Your task to perform on an android device: set default search engine in the chrome app Image 0: 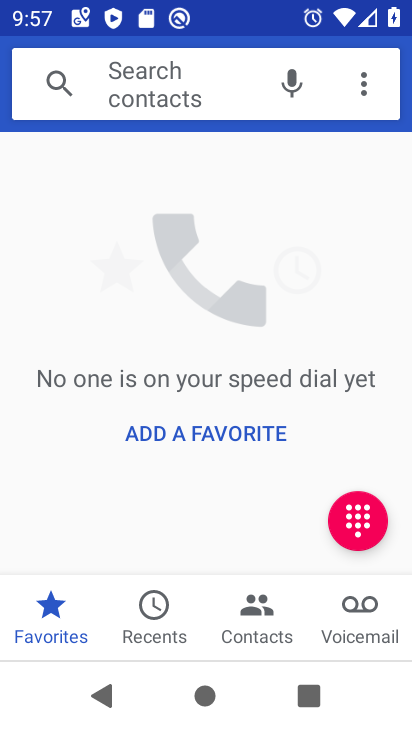
Step 0: press home button
Your task to perform on an android device: set default search engine in the chrome app Image 1: 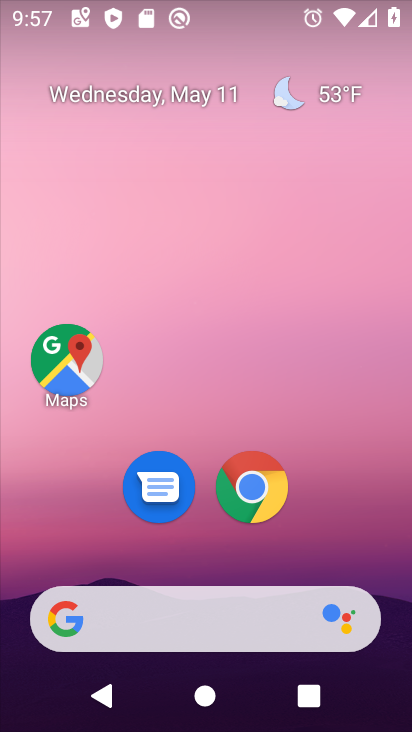
Step 1: click (226, 496)
Your task to perform on an android device: set default search engine in the chrome app Image 2: 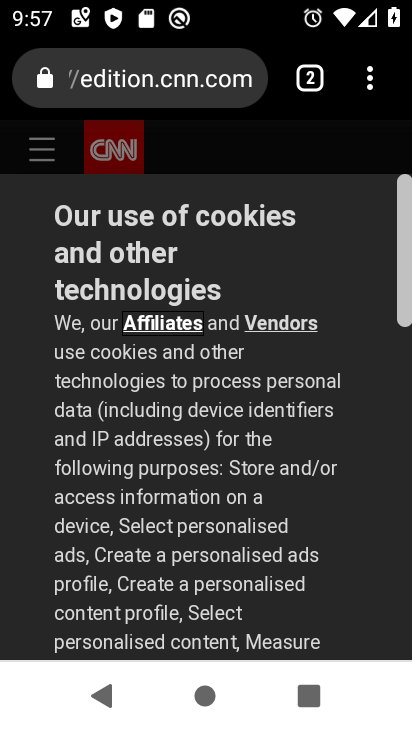
Step 2: drag from (357, 86) to (165, 544)
Your task to perform on an android device: set default search engine in the chrome app Image 3: 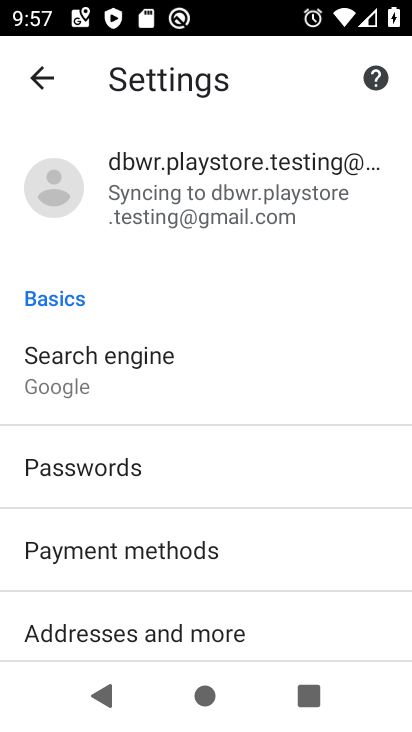
Step 3: click (113, 392)
Your task to perform on an android device: set default search engine in the chrome app Image 4: 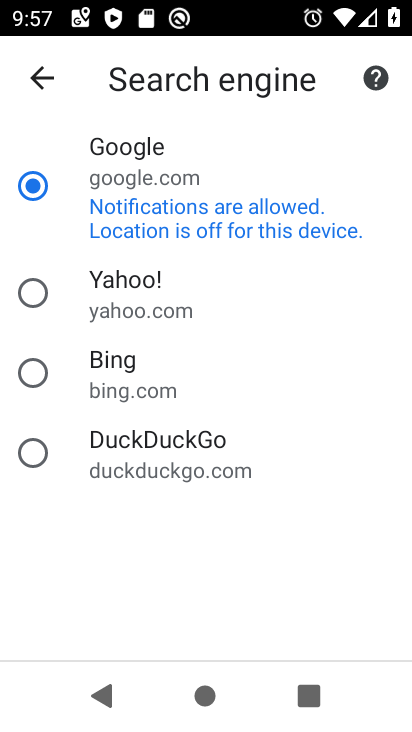
Step 4: click (113, 392)
Your task to perform on an android device: set default search engine in the chrome app Image 5: 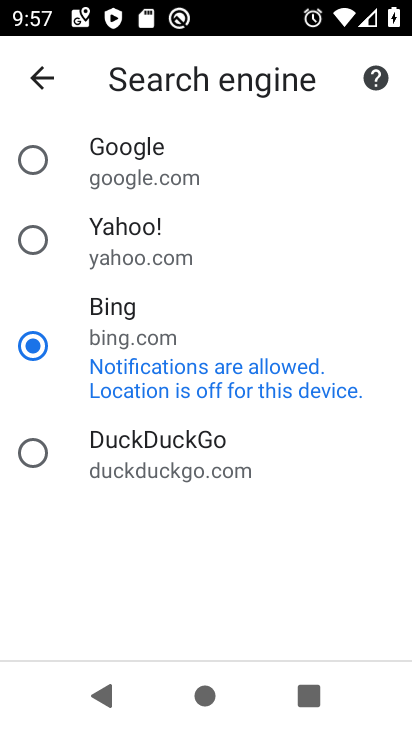
Step 5: task complete